Your task to perform on an android device: Show me productivity apps on the Play Store Image 0: 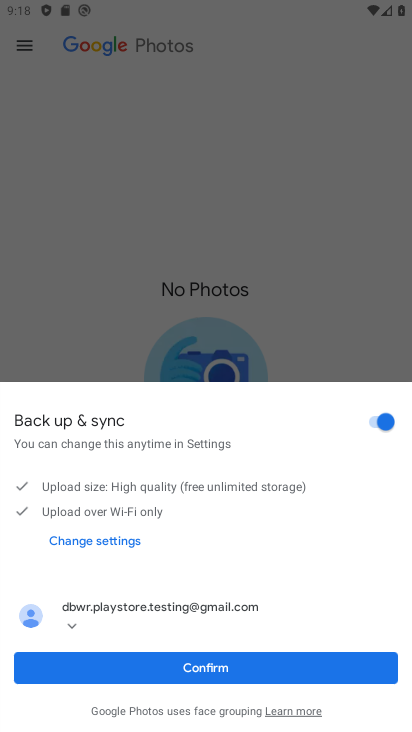
Step 0: click (222, 671)
Your task to perform on an android device: Show me productivity apps on the Play Store Image 1: 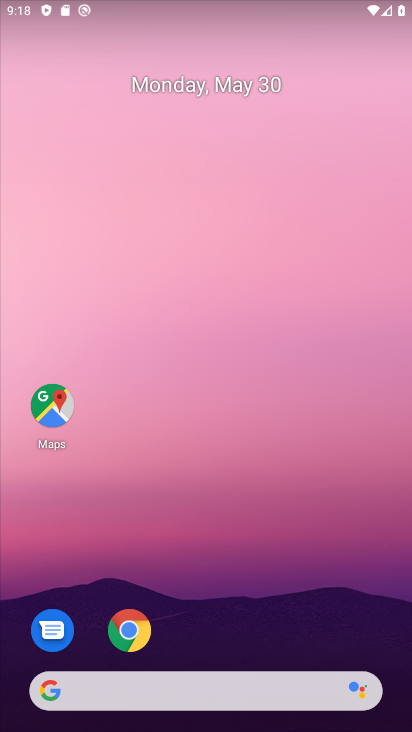
Step 1: drag from (201, 627) to (268, 164)
Your task to perform on an android device: Show me productivity apps on the Play Store Image 2: 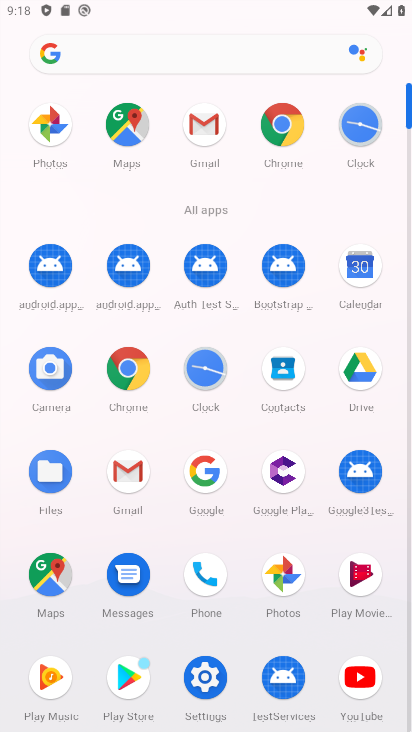
Step 2: click (136, 682)
Your task to perform on an android device: Show me productivity apps on the Play Store Image 3: 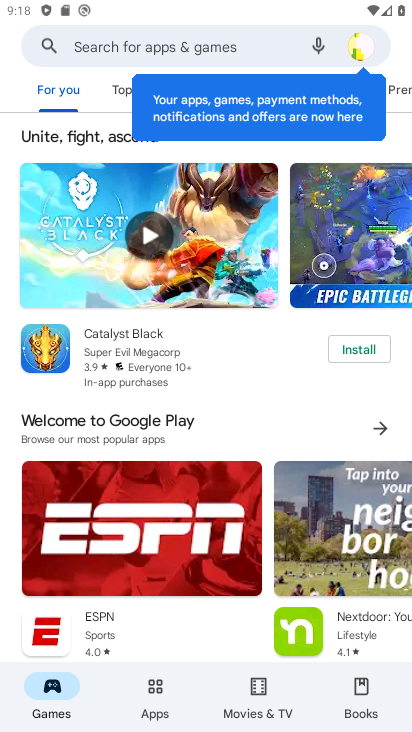
Step 3: click (165, 691)
Your task to perform on an android device: Show me productivity apps on the Play Store Image 4: 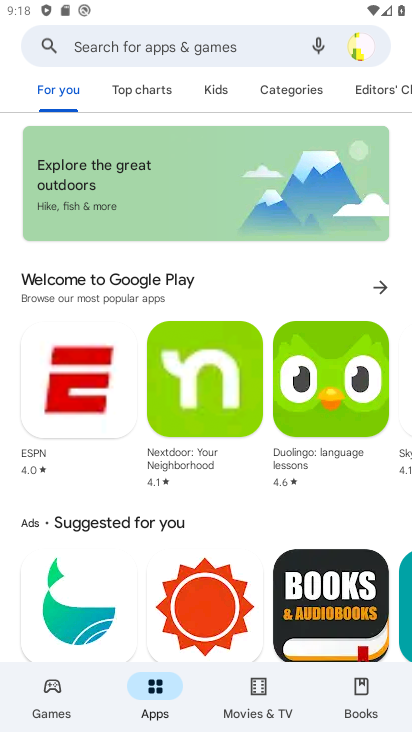
Step 4: click (130, 105)
Your task to perform on an android device: Show me productivity apps on the Play Store Image 5: 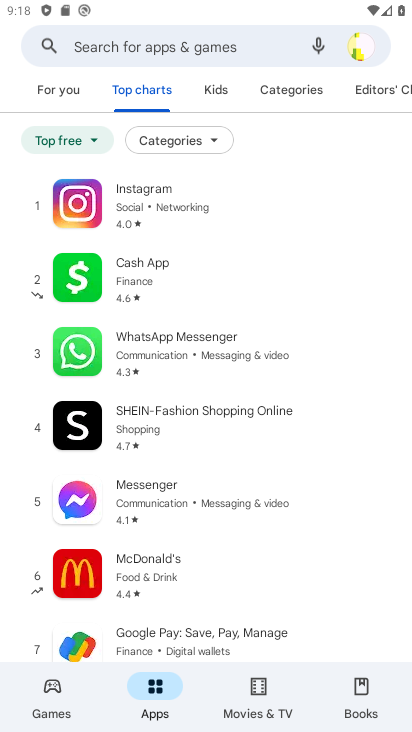
Step 5: click (190, 146)
Your task to perform on an android device: Show me productivity apps on the Play Store Image 6: 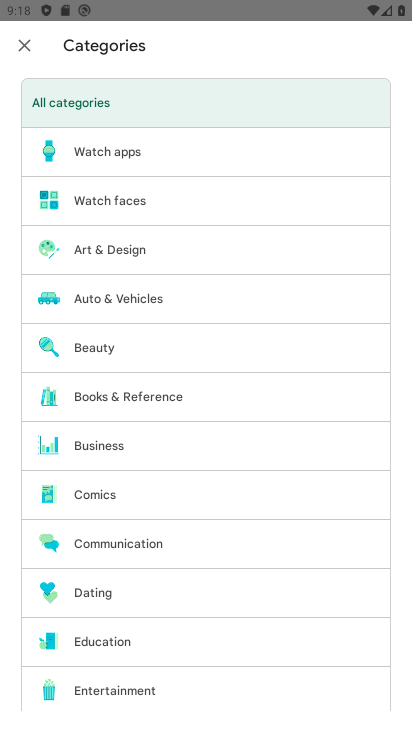
Step 6: drag from (179, 657) to (208, 267)
Your task to perform on an android device: Show me productivity apps on the Play Store Image 7: 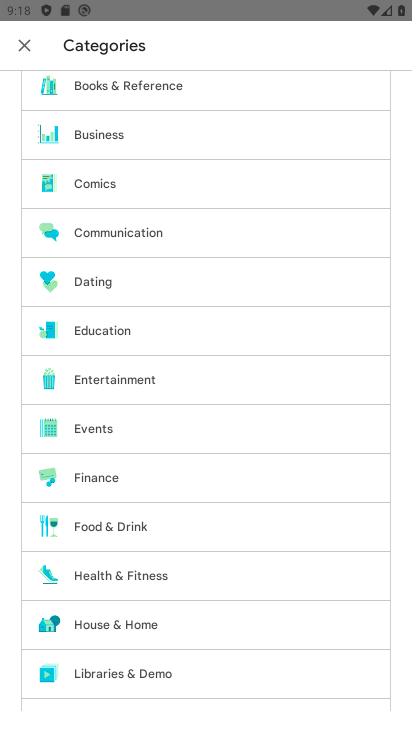
Step 7: drag from (202, 540) to (219, 358)
Your task to perform on an android device: Show me productivity apps on the Play Store Image 8: 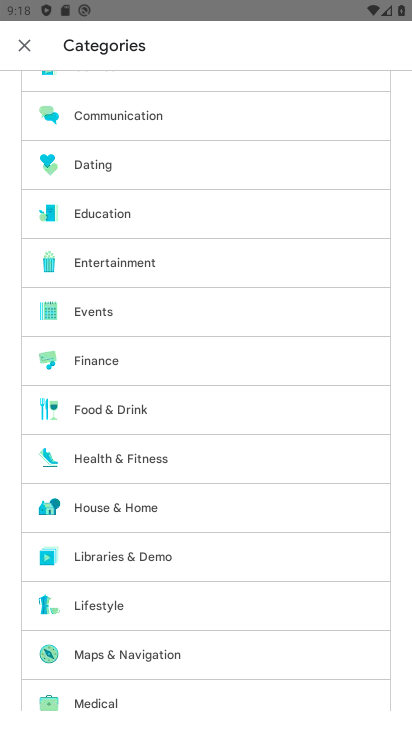
Step 8: drag from (184, 641) to (193, 424)
Your task to perform on an android device: Show me productivity apps on the Play Store Image 9: 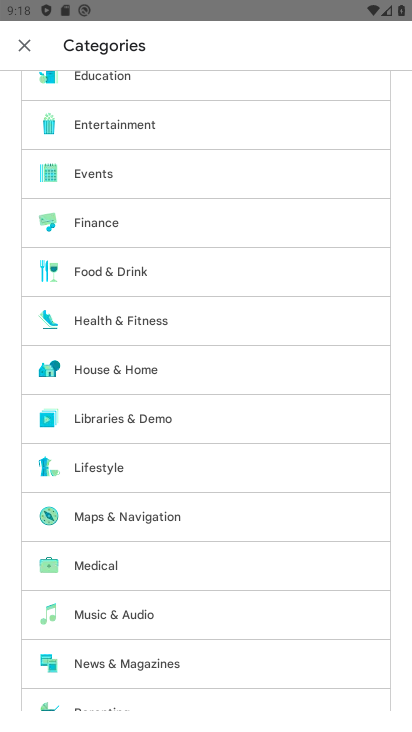
Step 9: drag from (174, 634) to (189, 408)
Your task to perform on an android device: Show me productivity apps on the Play Store Image 10: 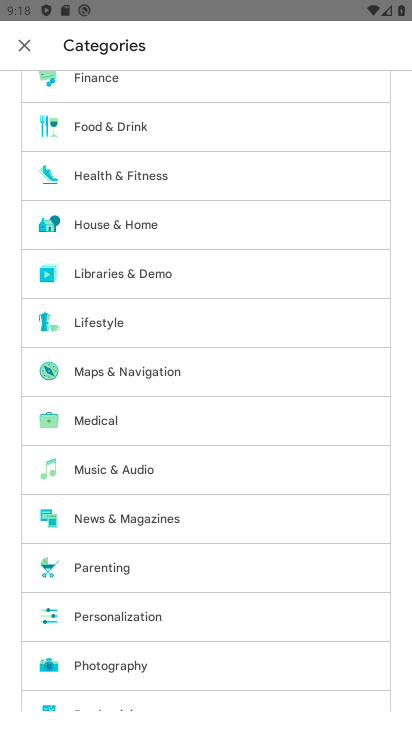
Step 10: drag from (147, 638) to (158, 358)
Your task to perform on an android device: Show me productivity apps on the Play Store Image 11: 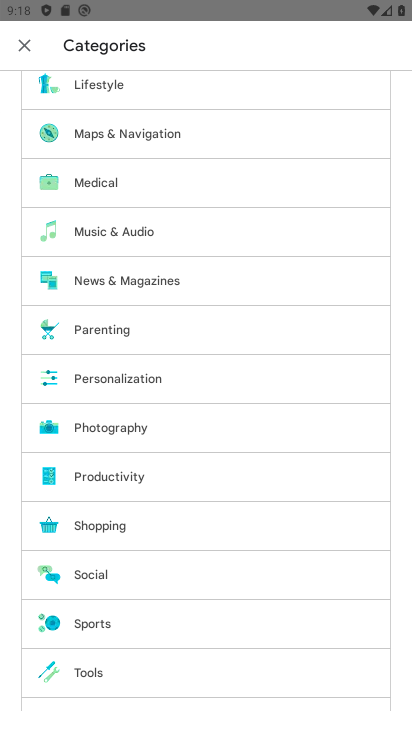
Step 11: click (173, 485)
Your task to perform on an android device: Show me productivity apps on the Play Store Image 12: 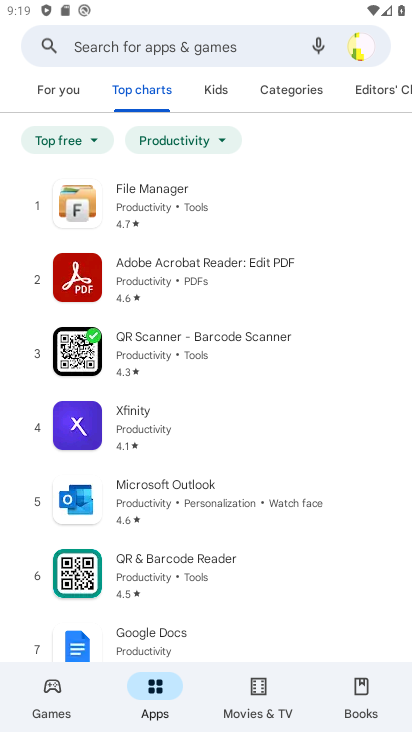
Step 12: task complete